Your task to perform on an android device: turn notification dots off Image 0: 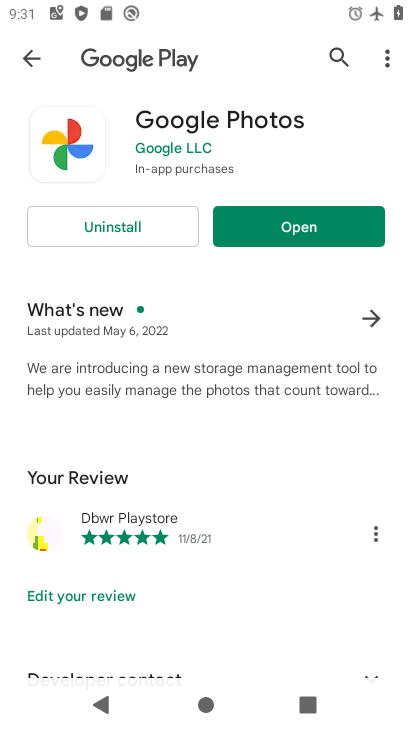
Step 0: press home button
Your task to perform on an android device: turn notification dots off Image 1: 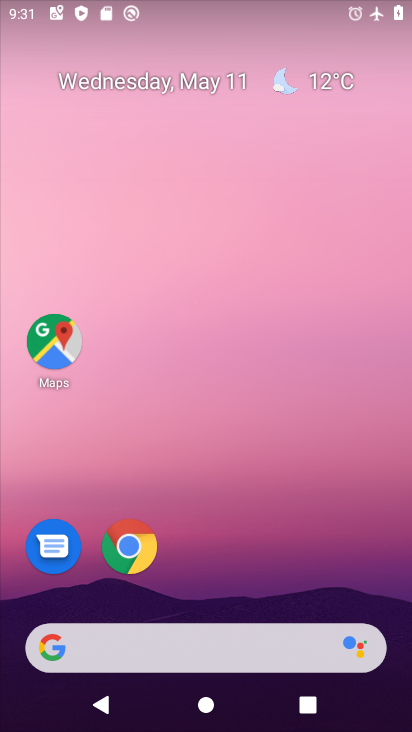
Step 1: drag from (405, 611) to (290, 39)
Your task to perform on an android device: turn notification dots off Image 2: 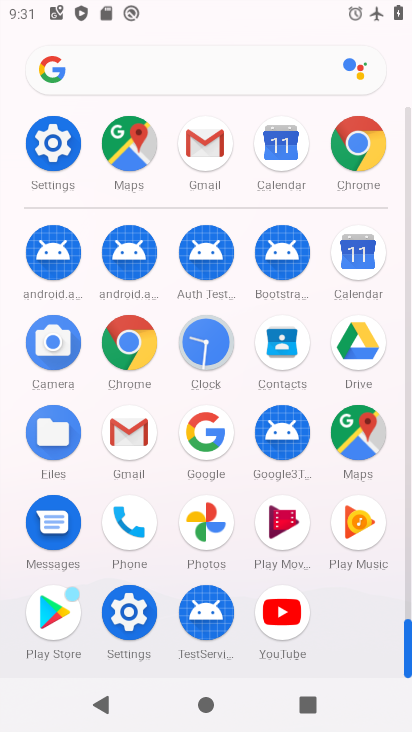
Step 2: click (126, 611)
Your task to perform on an android device: turn notification dots off Image 3: 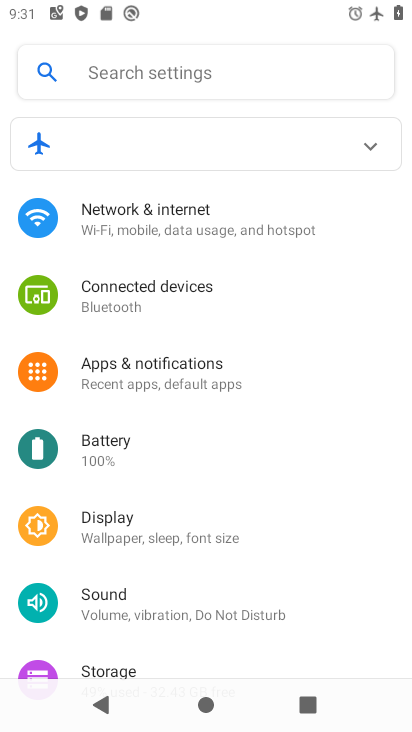
Step 3: click (152, 366)
Your task to perform on an android device: turn notification dots off Image 4: 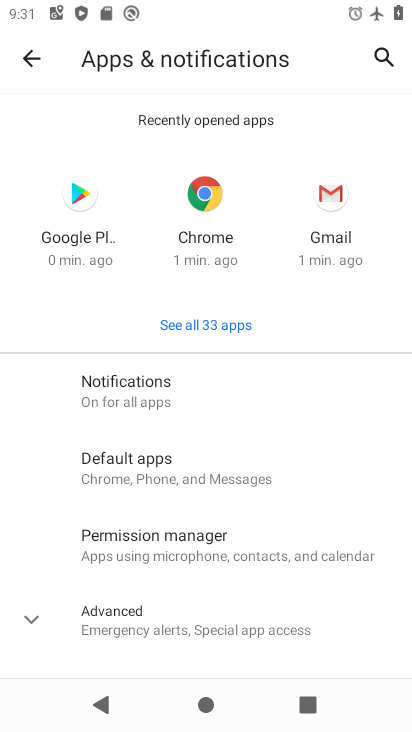
Step 4: click (136, 392)
Your task to perform on an android device: turn notification dots off Image 5: 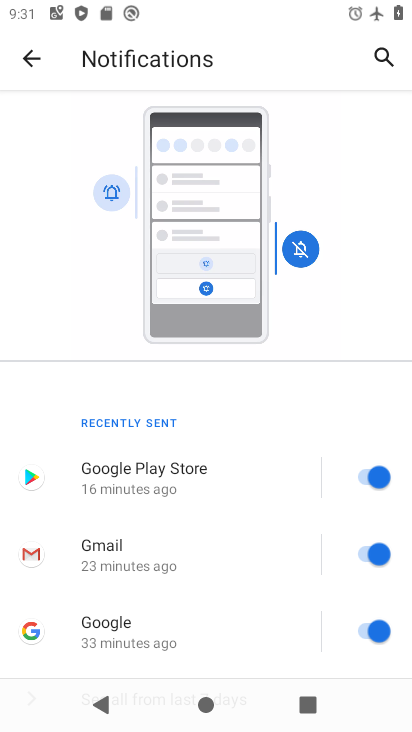
Step 5: drag from (328, 644) to (234, 153)
Your task to perform on an android device: turn notification dots off Image 6: 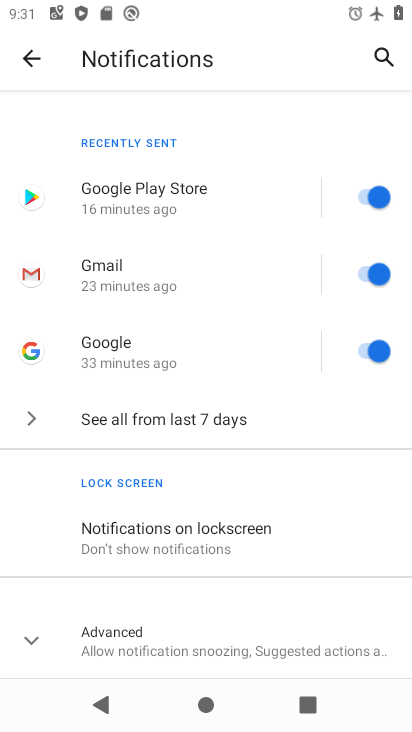
Step 6: click (37, 629)
Your task to perform on an android device: turn notification dots off Image 7: 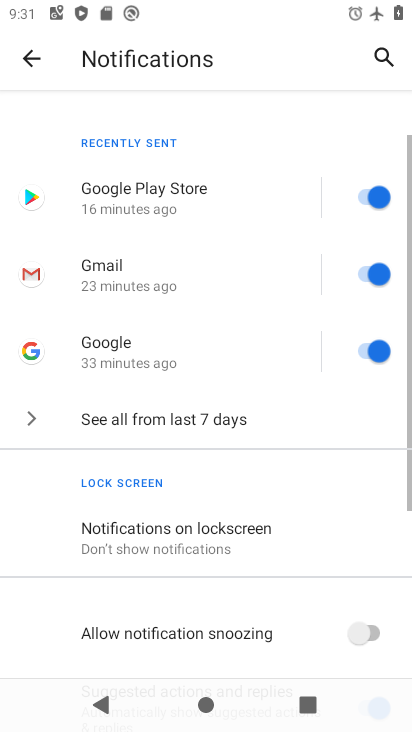
Step 7: drag from (313, 602) to (206, 97)
Your task to perform on an android device: turn notification dots off Image 8: 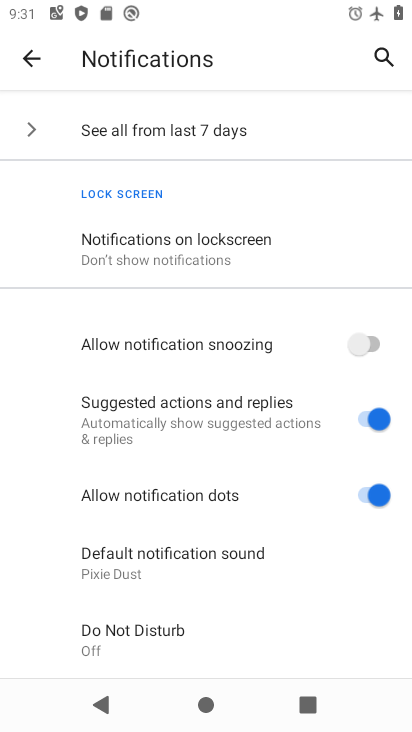
Step 8: click (365, 494)
Your task to perform on an android device: turn notification dots off Image 9: 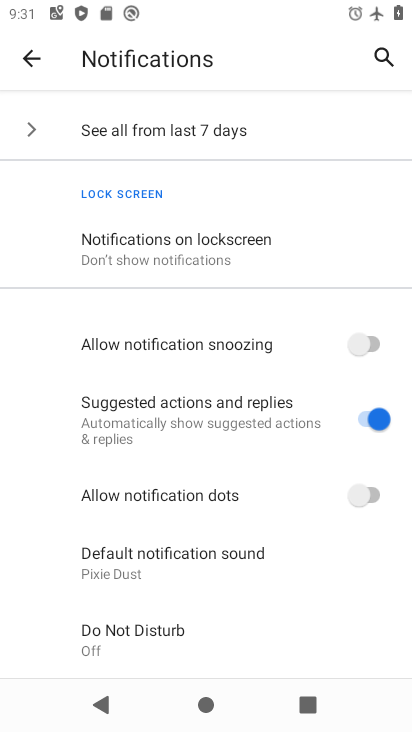
Step 9: task complete